Your task to perform on an android device: Search for seafood restaurants on Google Maps Image 0: 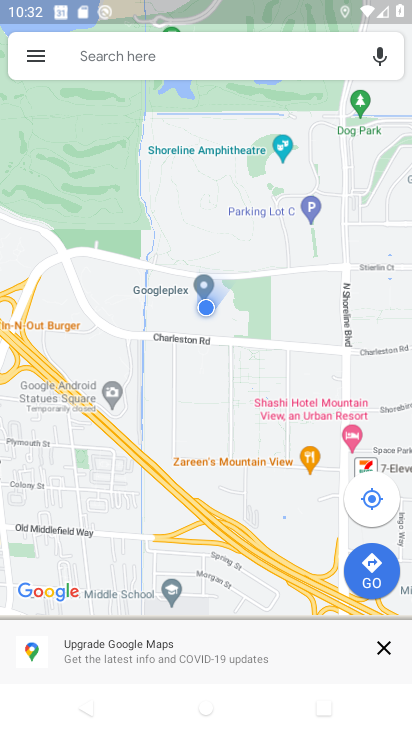
Step 0: click (122, 56)
Your task to perform on an android device: Search for seafood restaurants on Google Maps Image 1: 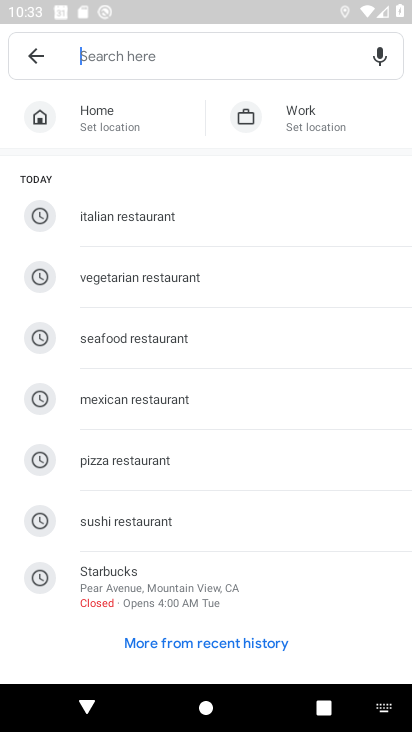
Step 1: click (119, 339)
Your task to perform on an android device: Search for seafood restaurants on Google Maps Image 2: 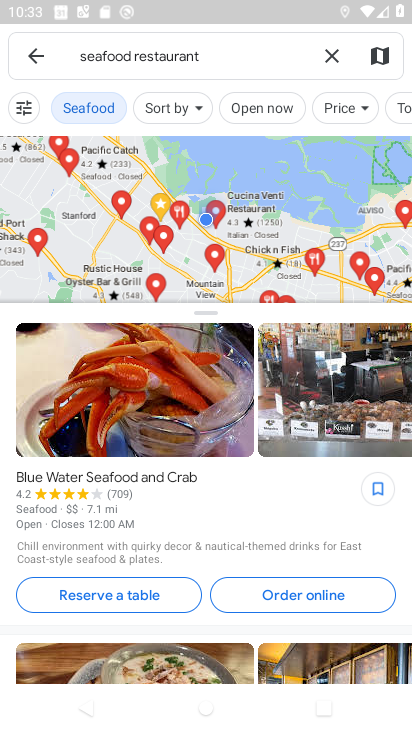
Step 2: task complete